Your task to perform on an android device: Show me recent news Image 0: 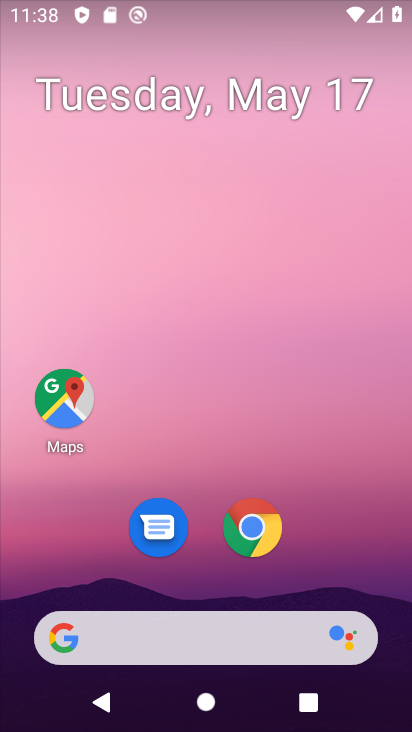
Step 0: drag from (328, 543) to (303, 118)
Your task to perform on an android device: Show me recent news Image 1: 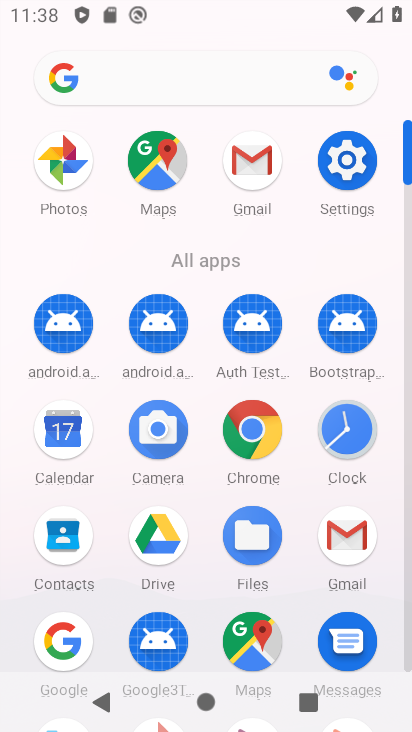
Step 1: drag from (300, 591) to (318, 261)
Your task to perform on an android device: Show me recent news Image 2: 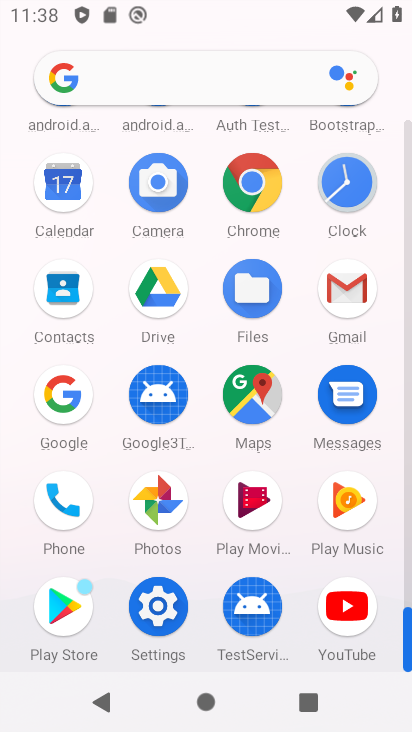
Step 2: click (60, 412)
Your task to perform on an android device: Show me recent news Image 3: 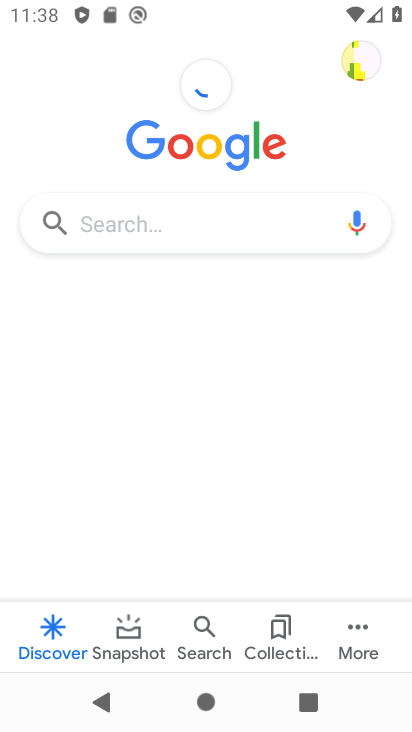
Step 3: click (134, 232)
Your task to perform on an android device: Show me recent news Image 4: 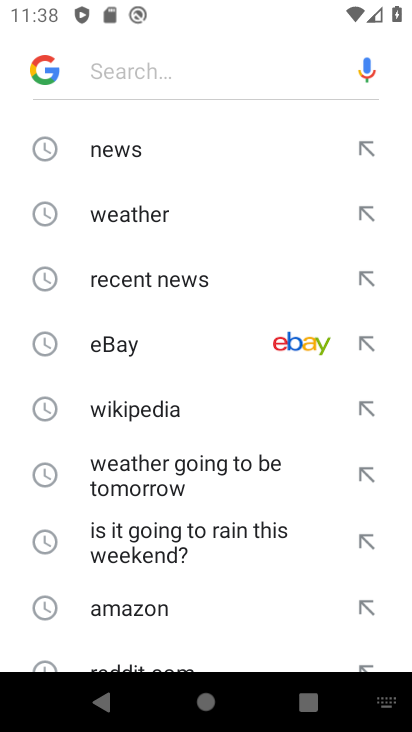
Step 4: drag from (207, 550) to (224, 440)
Your task to perform on an android device: Show me recent news Image 5: 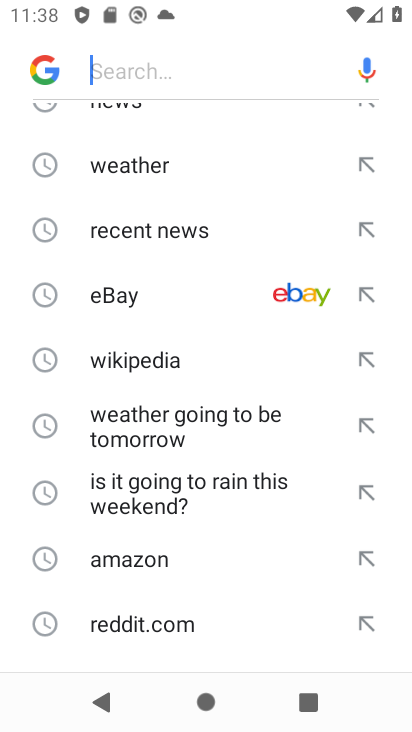
Step 5: click (175, 221)
Your task to perform on an android device: Show me recent news Image 6: 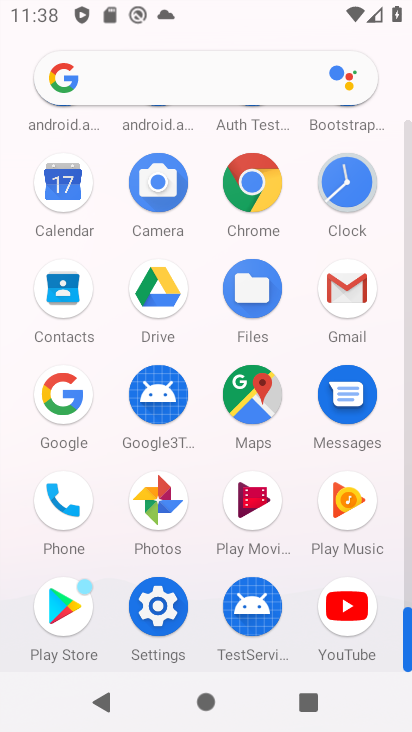
Step 6: task complete